Your task to perform on an android device: install app "ZOOM Cloud Meetings" Image 0: 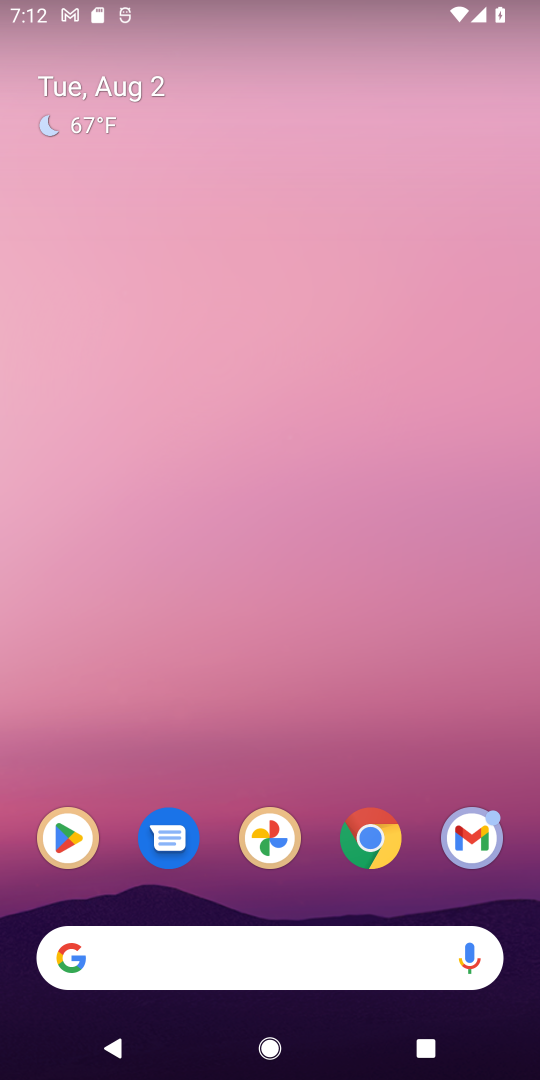
Step 0: click (69, 838)
Your task to perform on an android device: install app "ZOOM Cloud Meetings" Image 1: 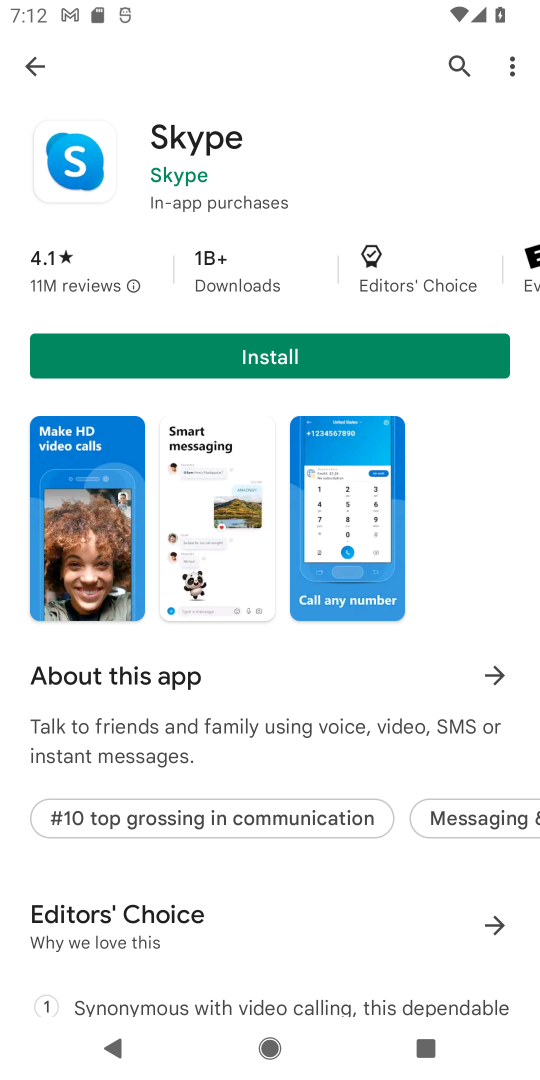
Step 1: click (449, 60)
Your task to perform on an android device: install app "ZOOM Cloud Meetings" Image 2: 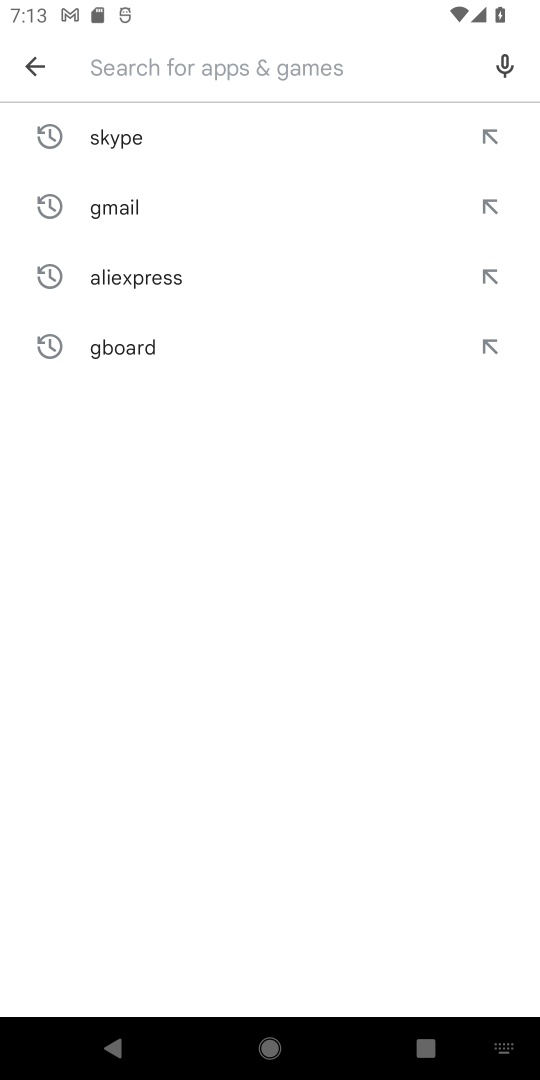
Step 2: type "zoom cloud meetings"
Your task to perform on an android device: install app "ZOOM Cloud Meetings" Image 3: 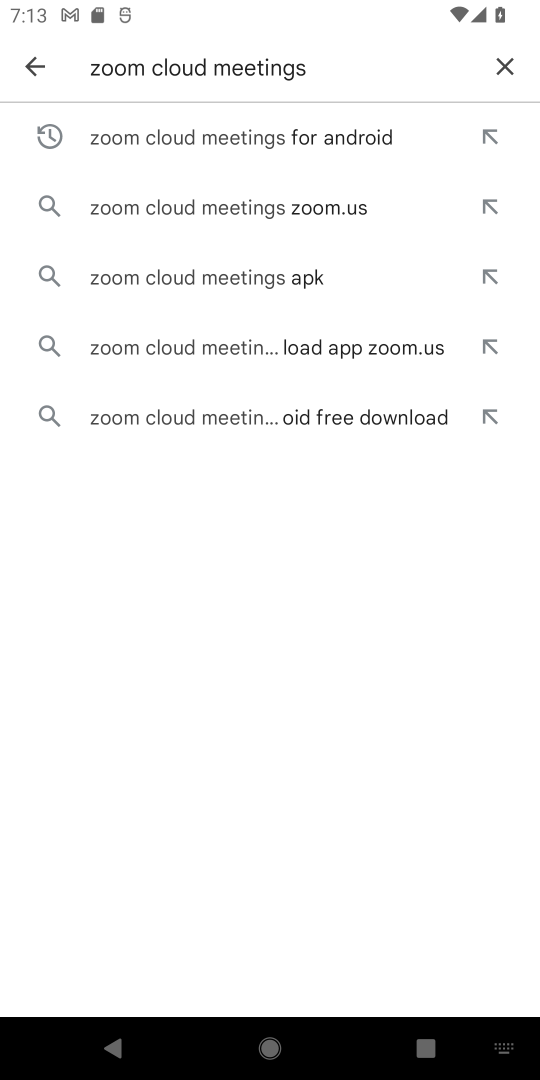
Step 3: click (356, 140)
Your task to perform on an android device: install app "ZOOM Cloud Meetings" Image 4: 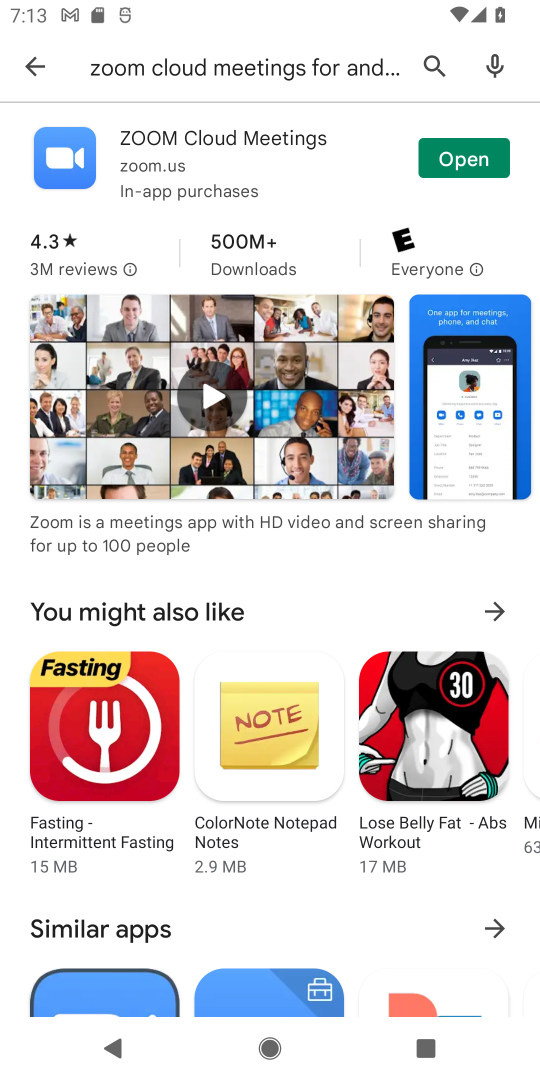
Step 4: click (356, 140)
Your task to perform on an android device: install app "ZOOM Cloud Meetings" Image 5: 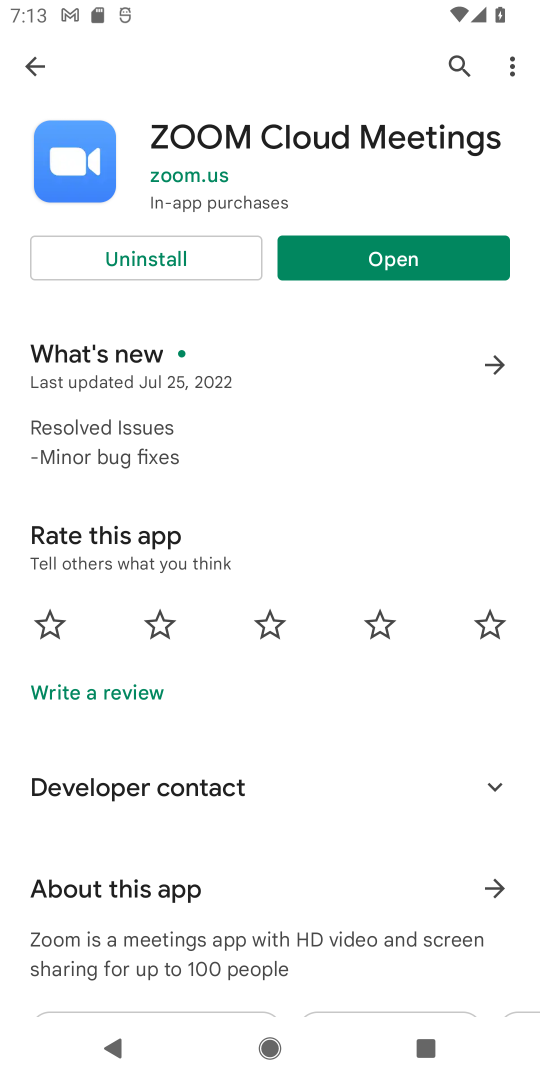
Step 5: task complete